Your task to perform on an android device: Open Google Maps and go to "Timeline" Image 0: 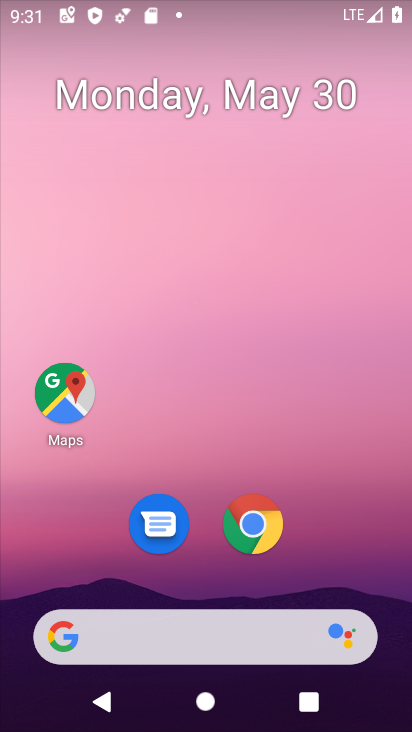
Step 0: click (64, 404)
Your task to perform on an android device: Open Google Maps and go to "Timeline" Image 1: 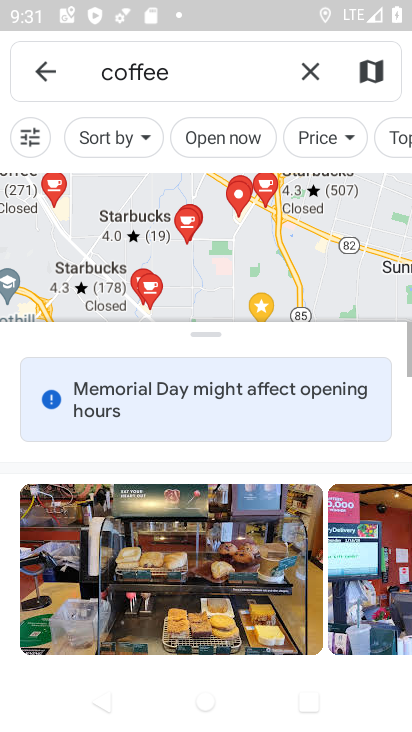
Step 1: click (36, 65)
Your task to perform on an android device: Open Google Maps and go to "Timeline" Image 2: 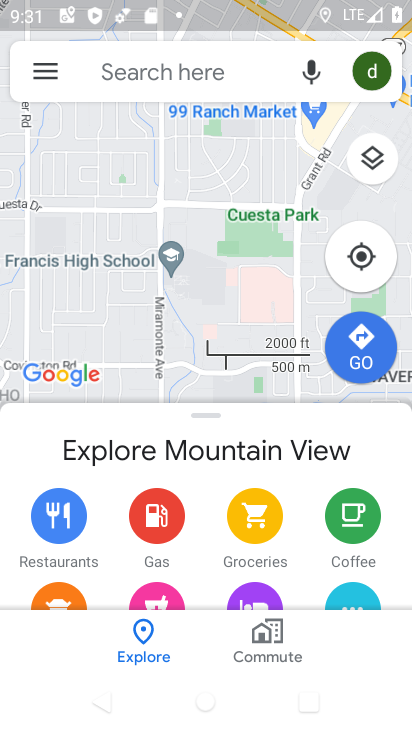
Step 2: click (38, 63)
Your task to perform on an android device: Open Google Maps and go to "Timeline" Image 3: 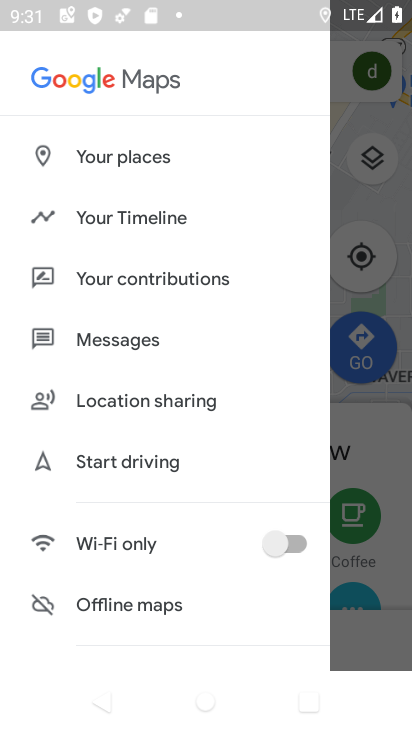
Step 3: click (108, 207)
Your task to perform on an android device: Open Google Maps and go to "Timeline" Image 4: 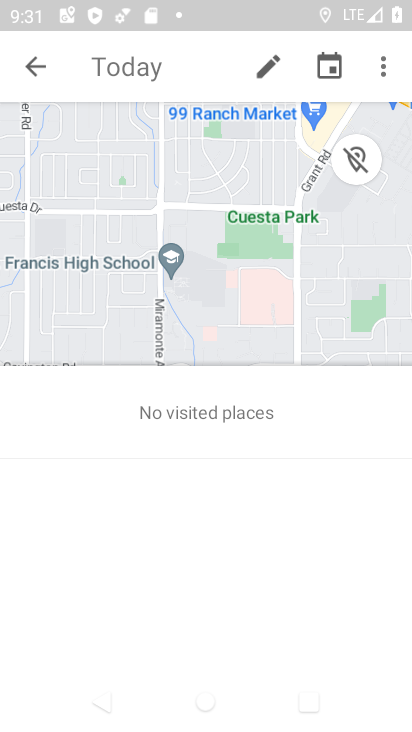
Step 4: task complete